Your task to perform on an android device: Open Maps and search for coffee Image 0: 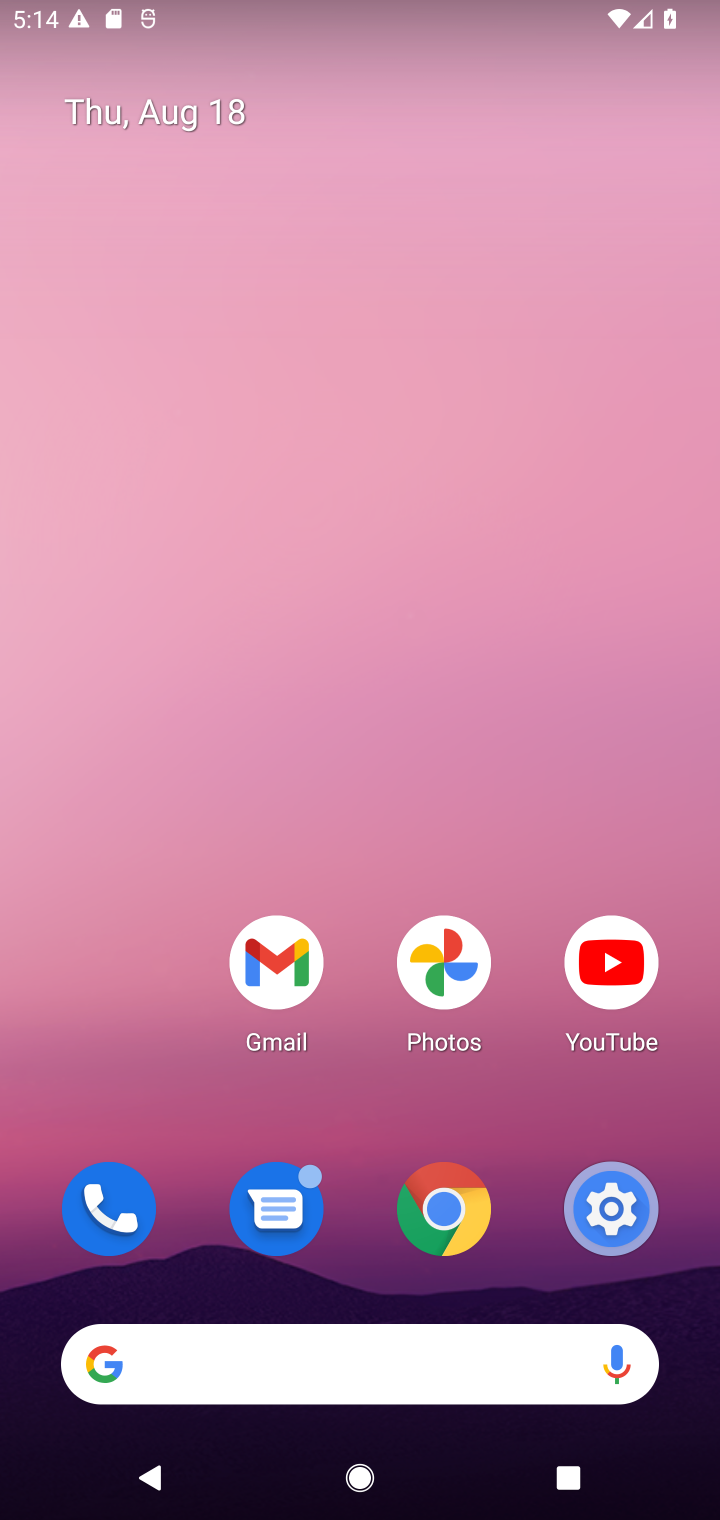
Step 0: drag from (312, 1114) to (359, 33)
Your task to perform on an android device: Open Maps and search for coffee Image 1: 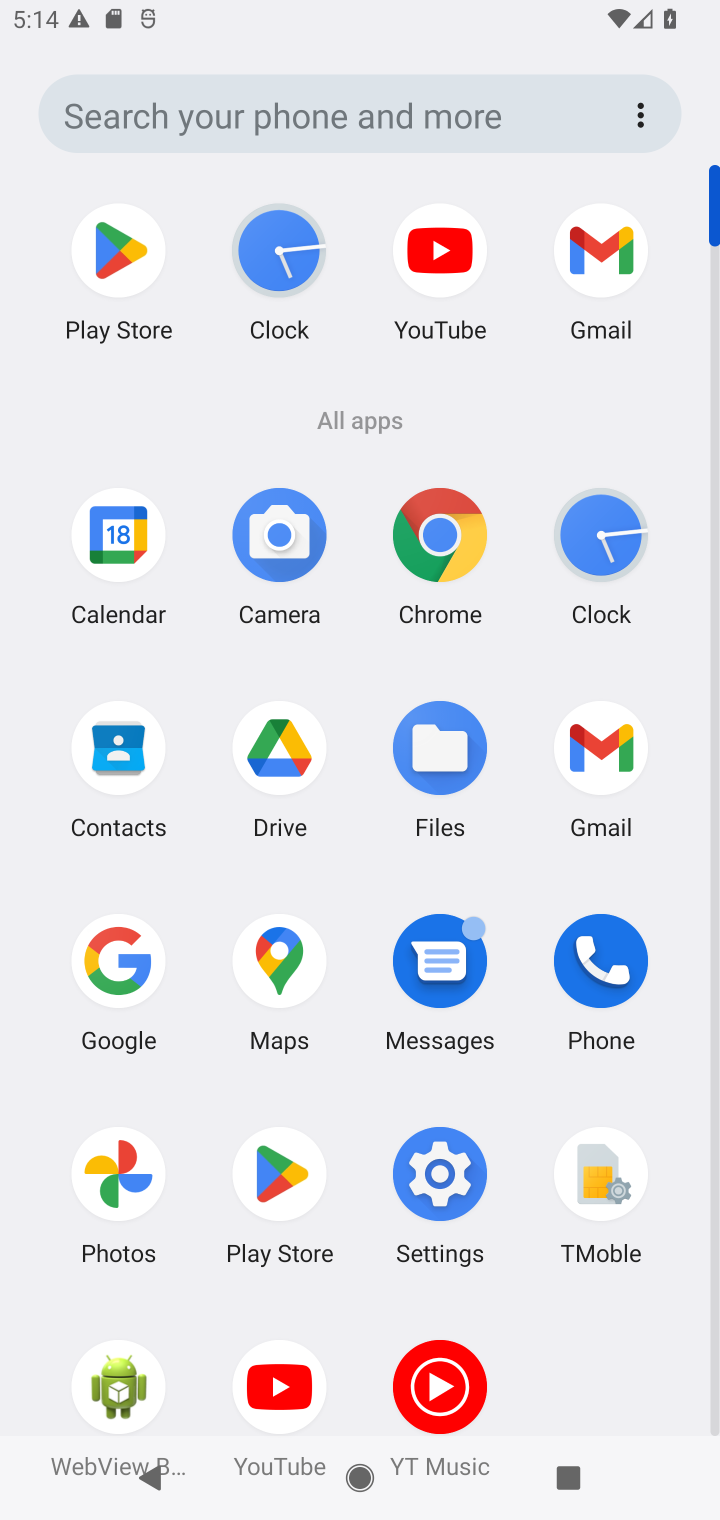
Step 1: drag from (191, 1157) to (141, 552)
Your task to perform on an android device: Open Maps and search for coffee Image 2: 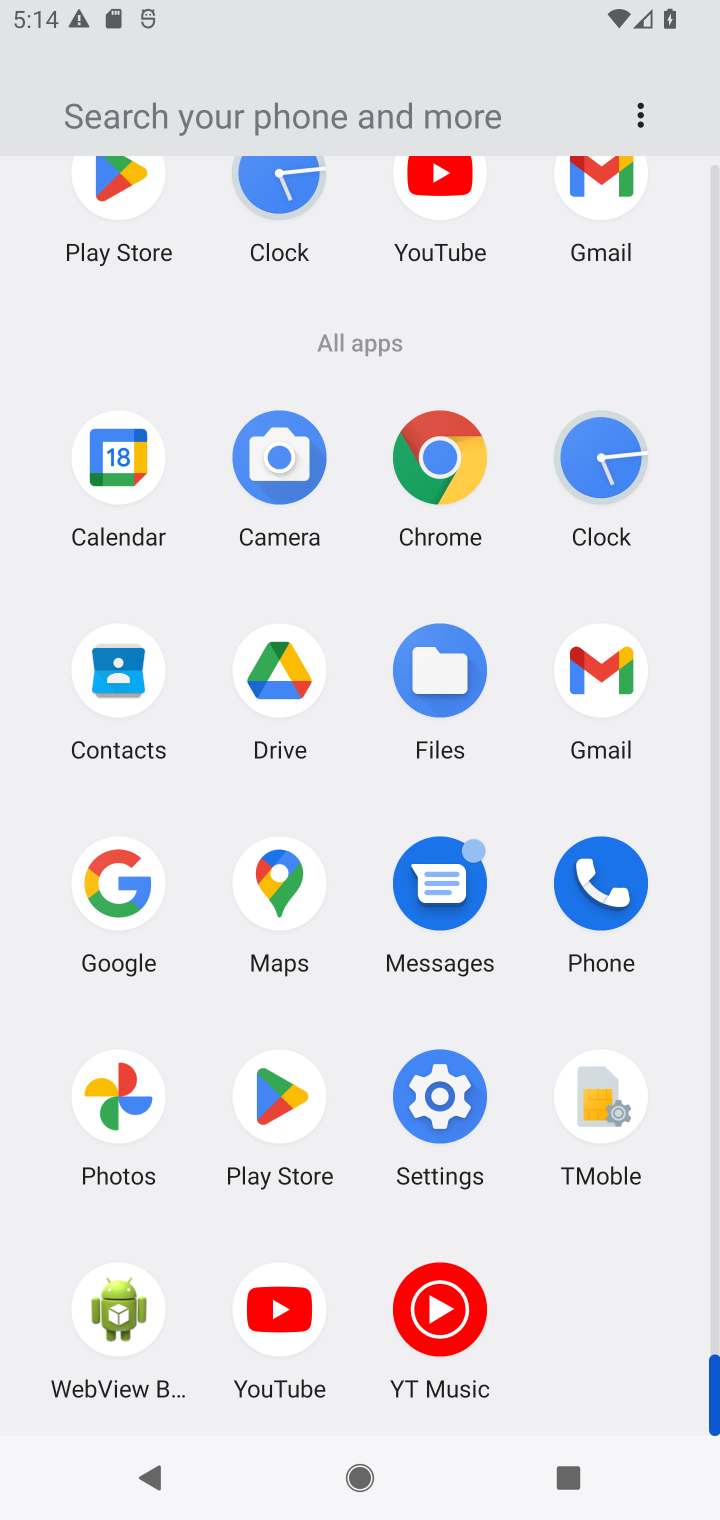
Step 2: click (270, 845)
Your task to perform on an android device: Open Maps and search for coffee Image 3: 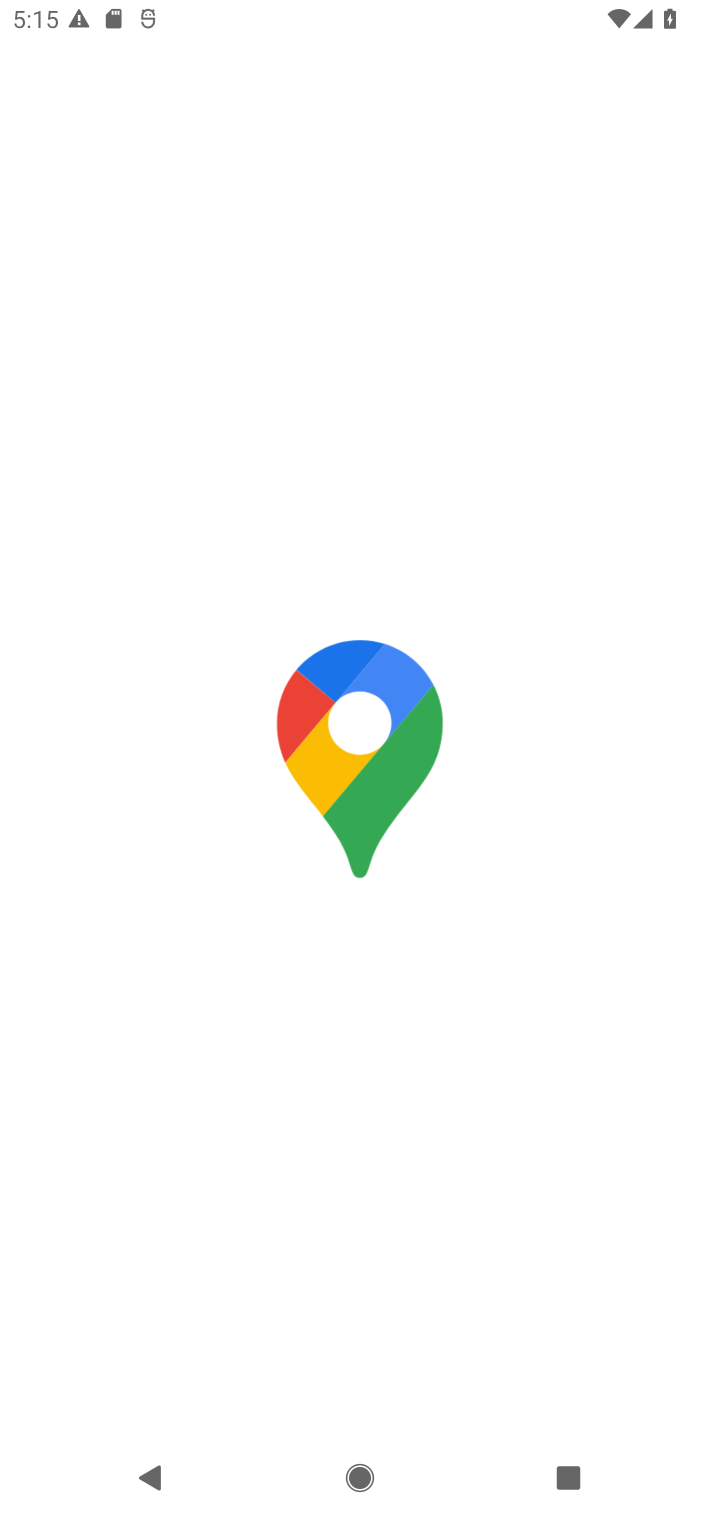
Step 3: task complete